Your task to perform on an android device: Open Chrome and go to the settings page Image 0: 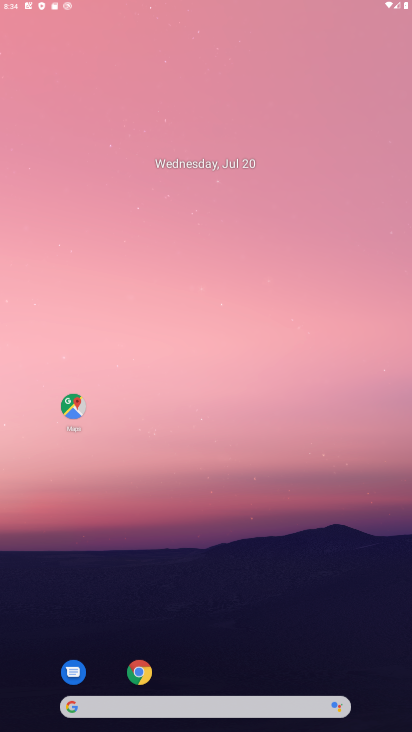
Step 0: click (250, 116)
Your task to perform on an android device: Open Chrome and go to the settings page Image 1: 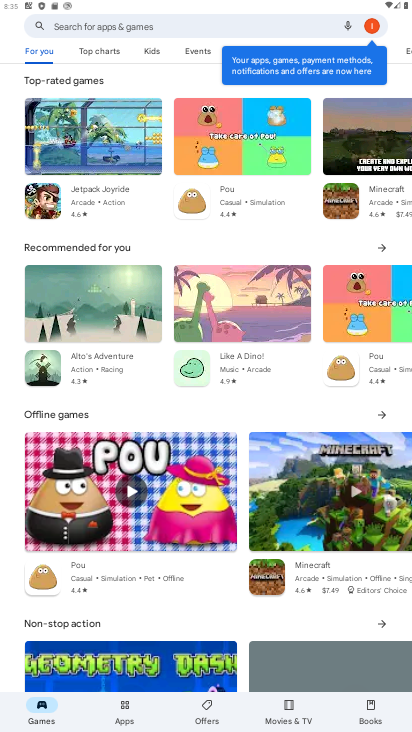
Step 1: press home button
Your task to perform on an android device: Open Chrome and go to the settings page Image 2: 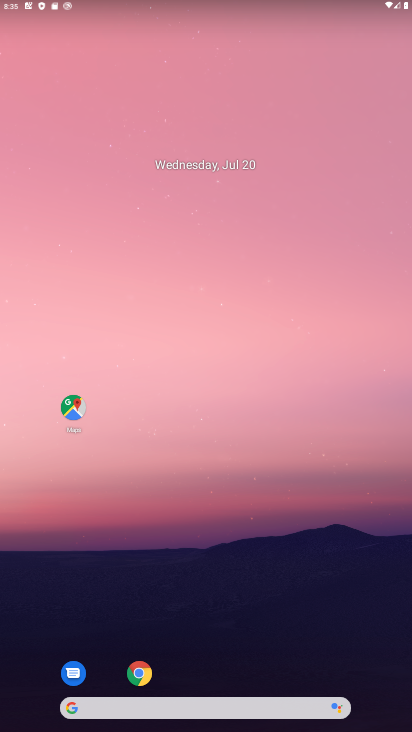
Step 2: drag from (179, 673) to (301, 0)
Your task to perform on an android device: Open Chrome and go to the settings page Image 3: 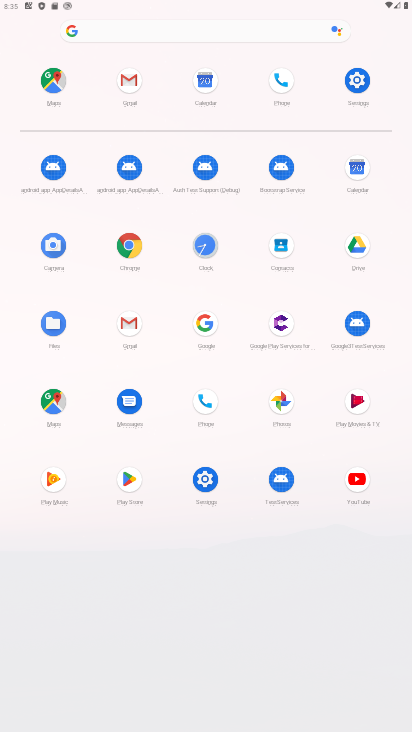
Step 3: click (201, 476)
Your task to perform on an android device: Open Chrome and go to the settings page Image 4: 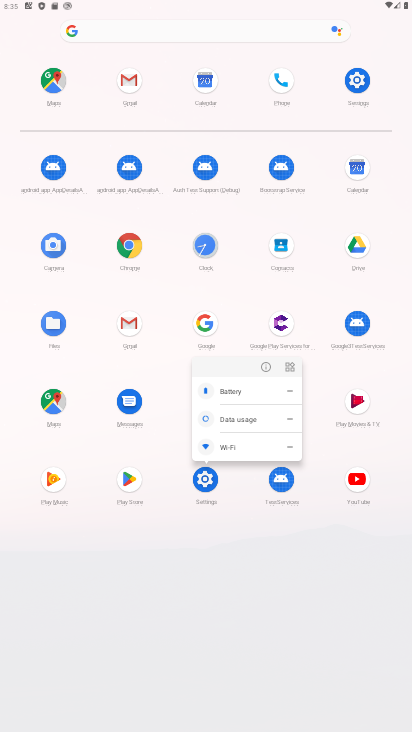
Step 4: click (267, 367)
Your task to perform on an android device: Open Chrome and go to the settings page Image 5: 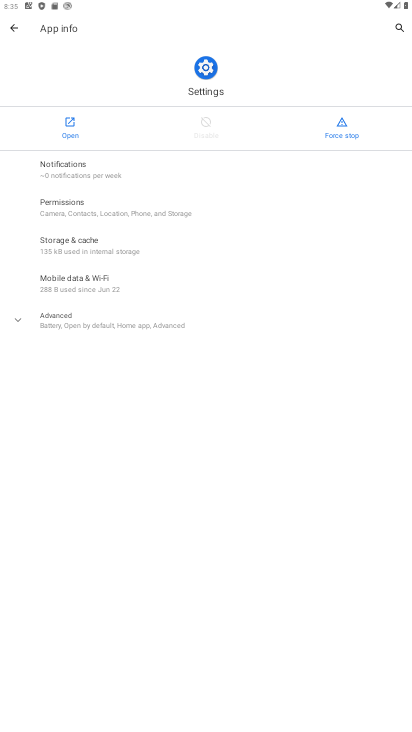
Step 5: click (60, 126)
Your task to perform on an android device: Open Chrome and go to the settings page Image 6: 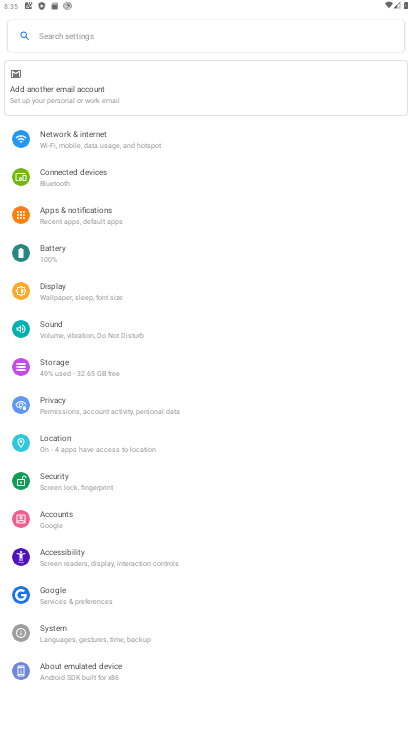
Step 6: drag from (169, 505) to (214, 247)
Your task to perform on an android device: Open Chrome and go to the settings page Image 7: 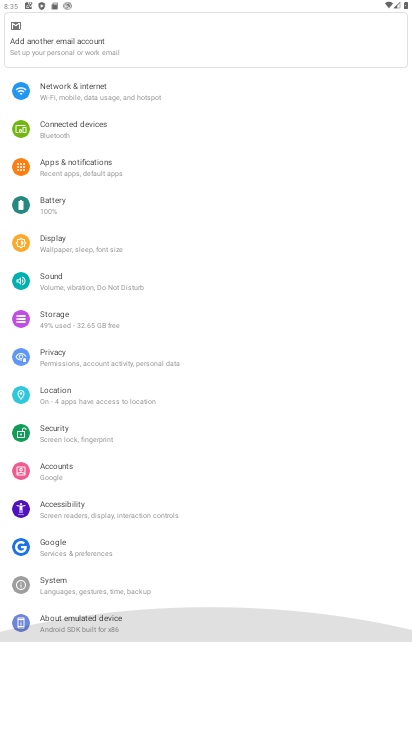
Step 7: drag from (218, 256) to (405, 714)
Your task to perform on an android device: Open Chrome and go to the settings page Image 8: 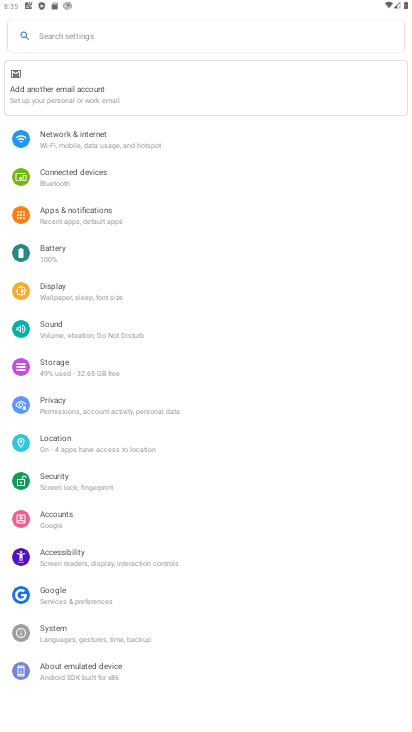
Step 8: press home button
Your task to perform on an android device: Open Chrome and go to the settings page Image 9: 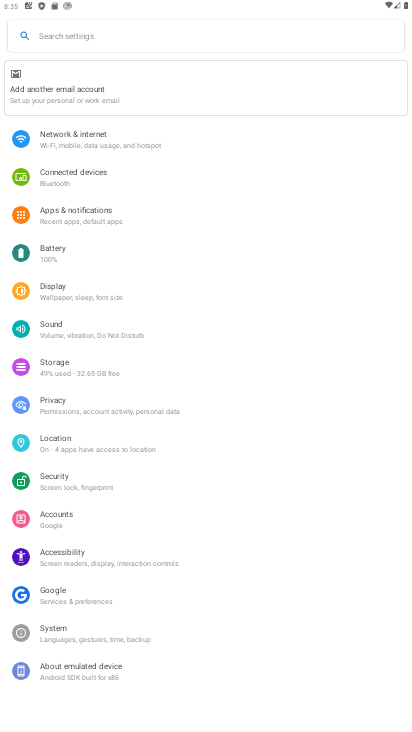
Step 9: press home button
Your task to perform on an android device: Open Chrome and go to the settings page Image 10: 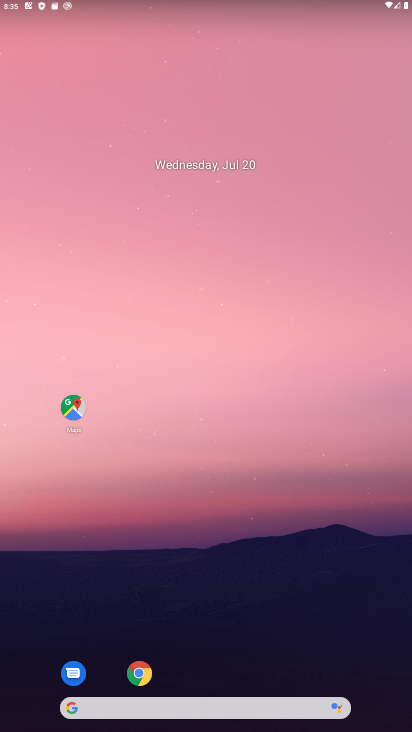
Step 10: drag from (196, 623) to (274, 60)
Your task to perform on an android device: Open Chrome and go to the settings page Image 11: 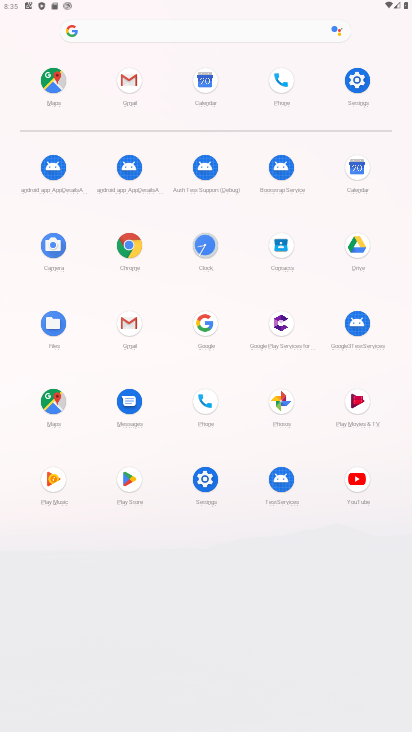
Step 11: click (128, 242)
Your task to perform on an android device: Open Chrome and go to the settings page Image 12: 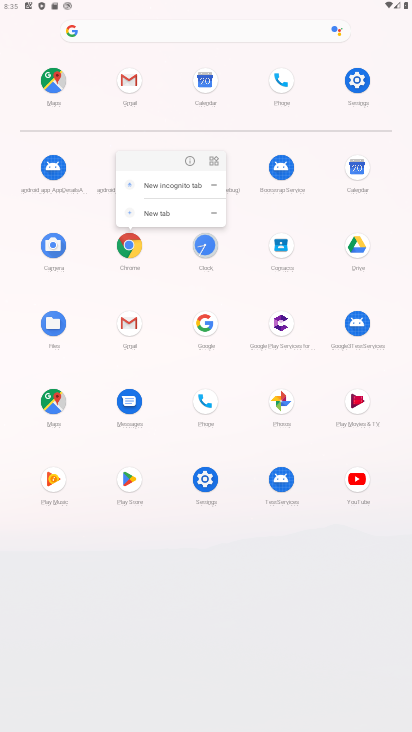
Step 12: click (184, 162)
Your task to perform on an android device: Open Chrome and go to the settings page Image 13: 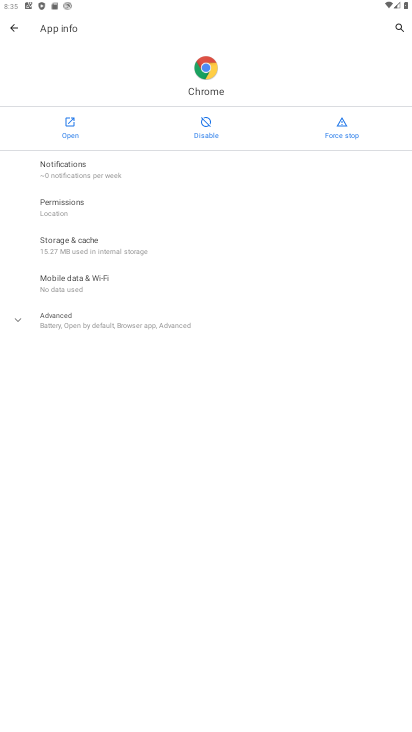
Step 13: click (75, 118)
Your task to perform on an android device: Open Chrome and go to the settings page Image 14: 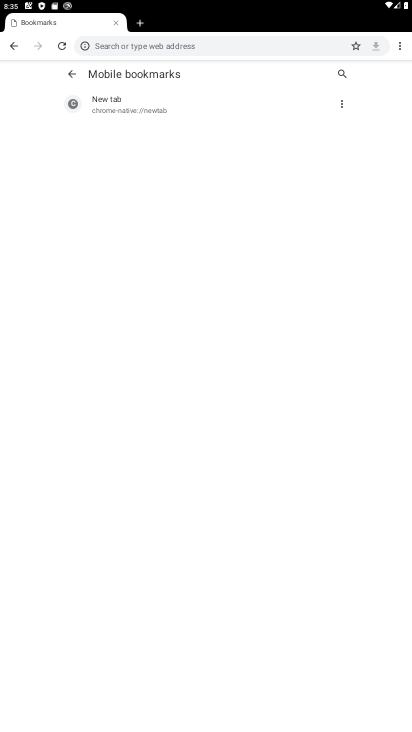
Step 14: drag from (398, 39) to (317, 209)
Your task to perform on an android device: Open Chrome and go to the settings page Image 15: 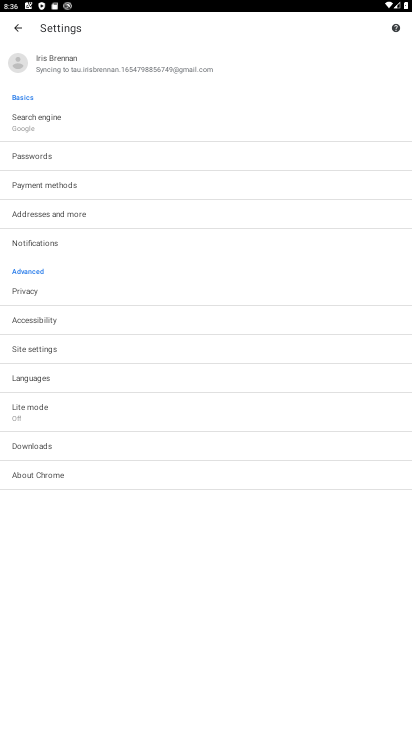
Step 15: drag from (106, 488) to (224, 196)
Your task to perform on an android device: Open Chrome and go to the settings page Image 16: 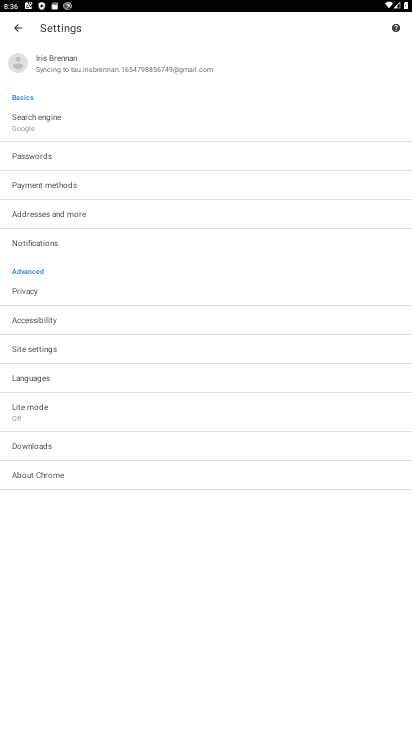
Step 16: drag from (173, 383) to (208, 109)
Your task to perform on an android device: Open Chrome and go to the settings page Image 17: 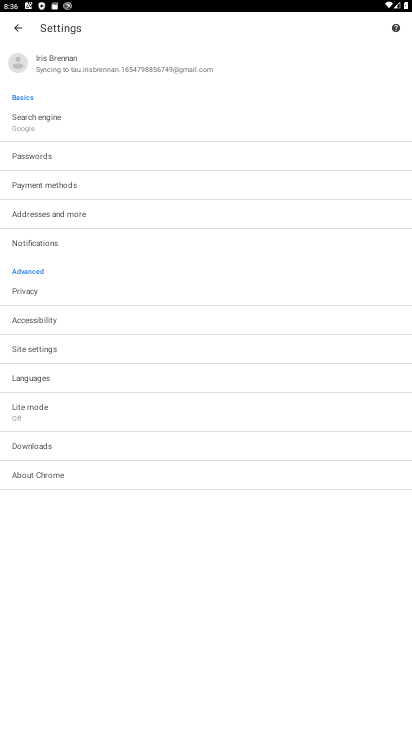
Step 17: drag from (242, 554) to (288, 162)
Your task to perform on an android device: Open Chrome and go to the settings page Image 18: 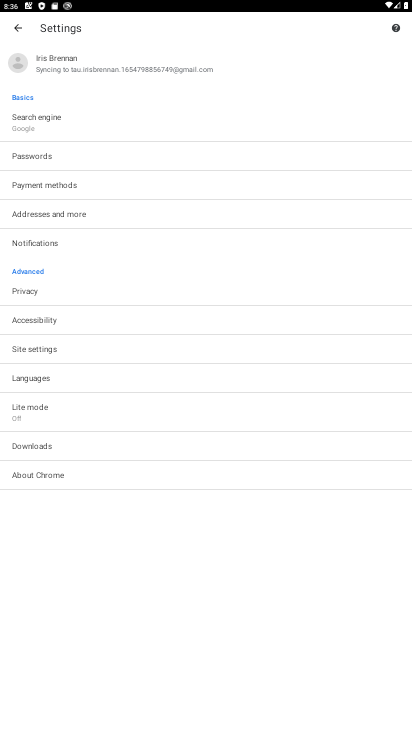
Step 18: click (73, 347)
Your task to perform on an android device: Open Chrome and go to the settings page Image 19: 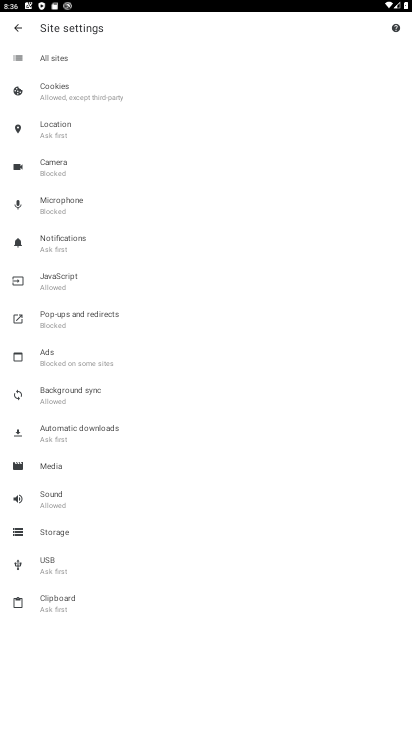
Step 19: click (15, 23)
Your task to perform on an android device: Open Chrome and go to the settings page Image 20: 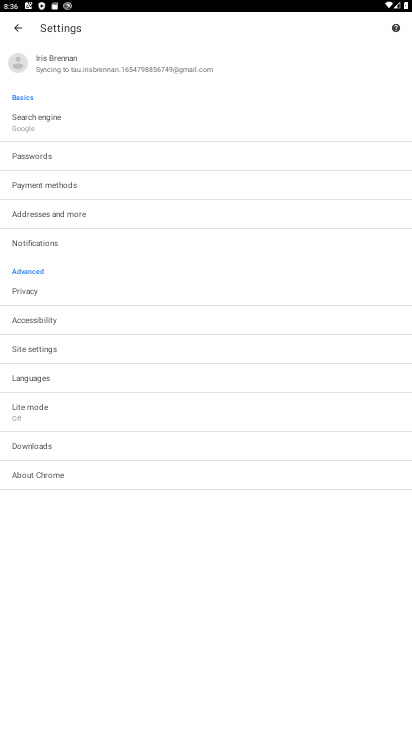
Step 20: task complete